Your task to perform on an android device: turn on data saver in the chrome app Image 0: 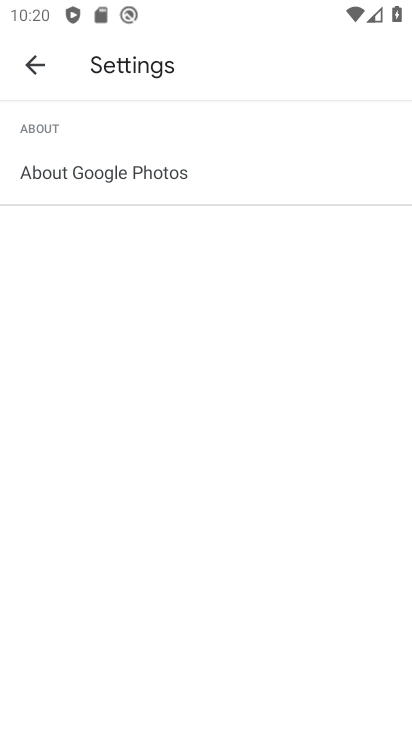
Step 0: press home button
Your task to perform on an android device: turn on data saver in the chrome app Image 1: 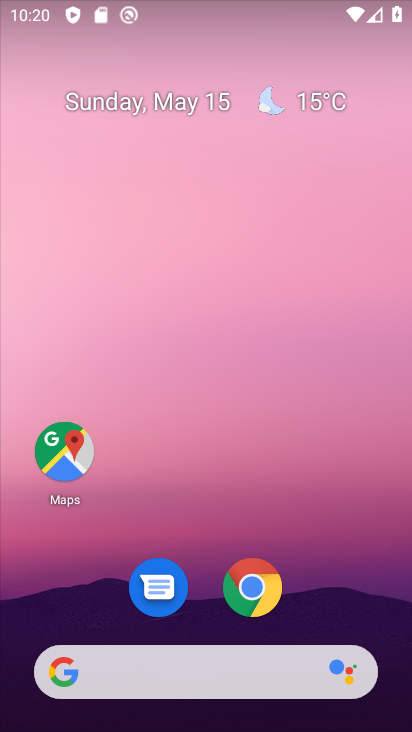
Step 1: click (261, 596)
Your task to perform on an android device: turn on data saver in the chrome app Image 2: 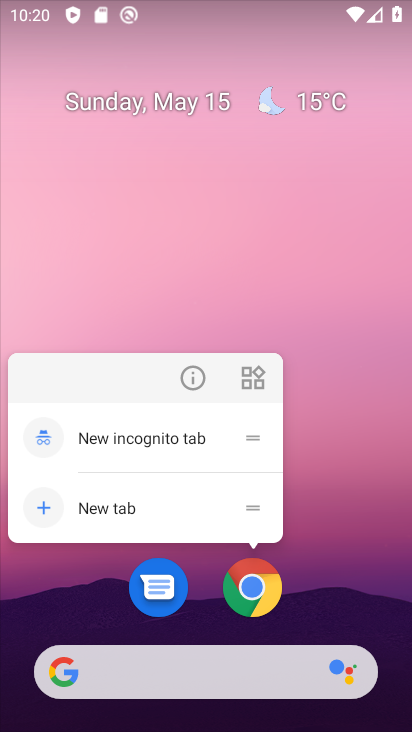
Step 2: click (259, 580)
Your task to perform on an android device: turn on data saver in the chrome app Image 3: 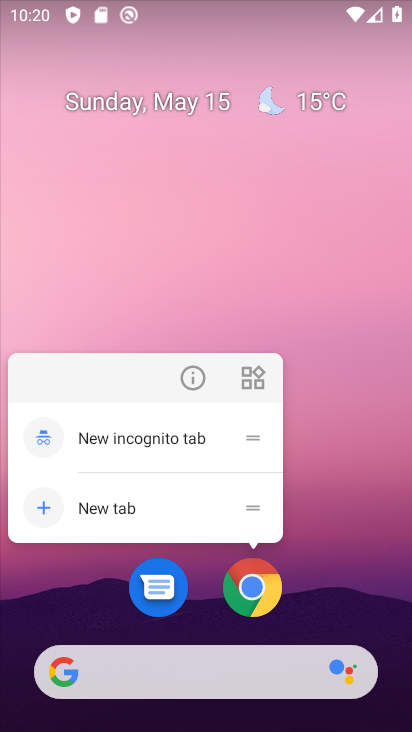
Step 3: click (251, 587)
Your task to perform on an android device: turn on data saver in the chrome app Image 4: 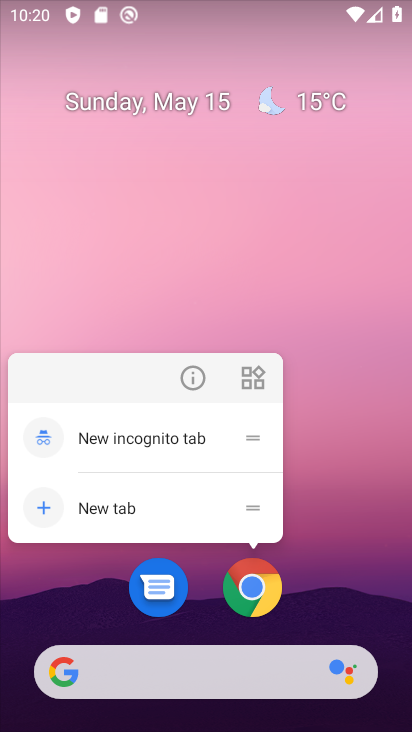
Step 4: click (247, 600)
Your task to perform on an android device: turn on data saver in the chrome app Image 5: 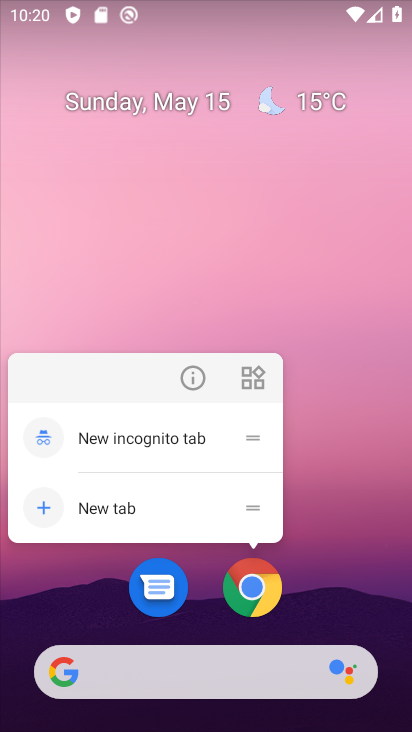
Step 5: click (270, 582)
Your task to perform on an android device: turn on data saver in the chrome app Image 6: 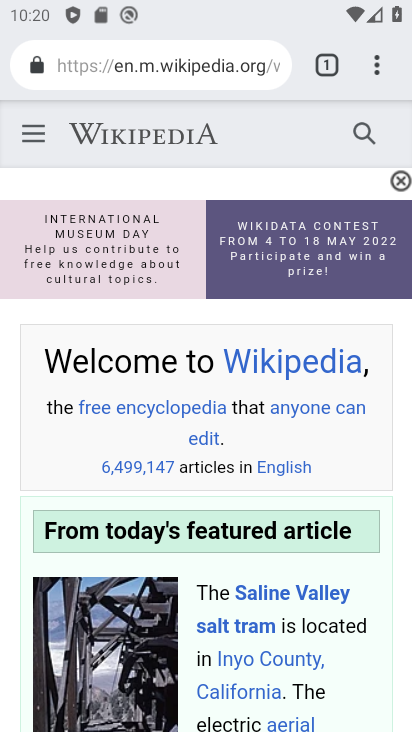
Step 6: drag from (387, 65) to (271, 635)
Your task to perform on an android device: turn on data saver in the chrome app Image 7: 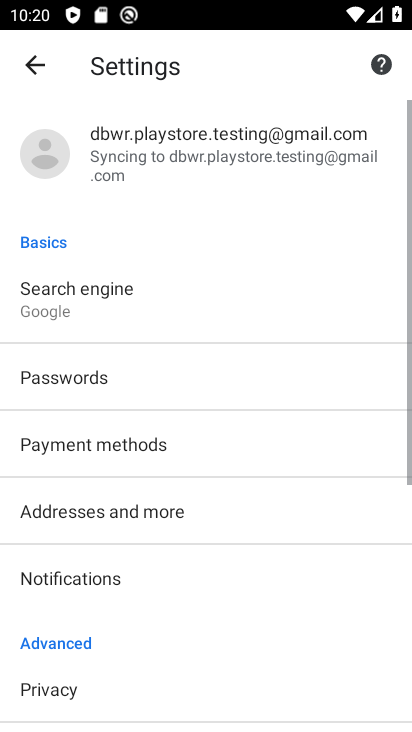
Step 7: drag from (258, 634) to (373, 240)
Your task to perform on an android device: turn on data saver in the chrome app Image 8: 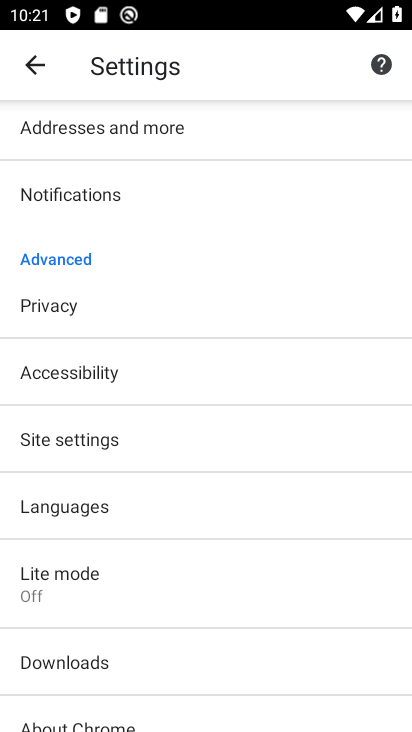
Step 8: drag from (148, 630) to (202, 397)
Your task to perform on an android device: turn on data saver in the chrome app Image 9: 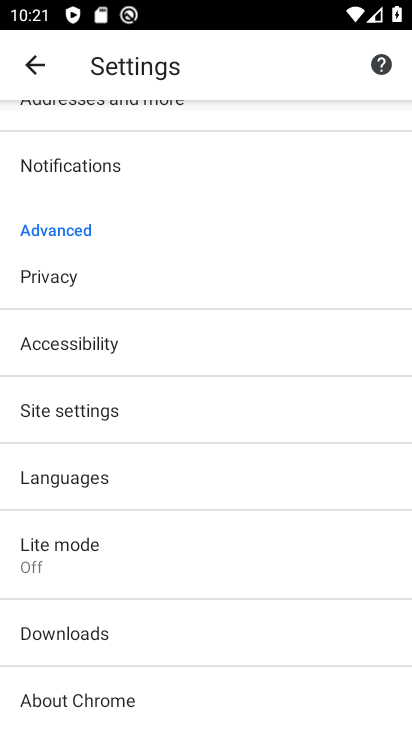
Step 9: click (218, 549)
Your task to perform on an android device: turn on data saver in the chrome app Image 10: 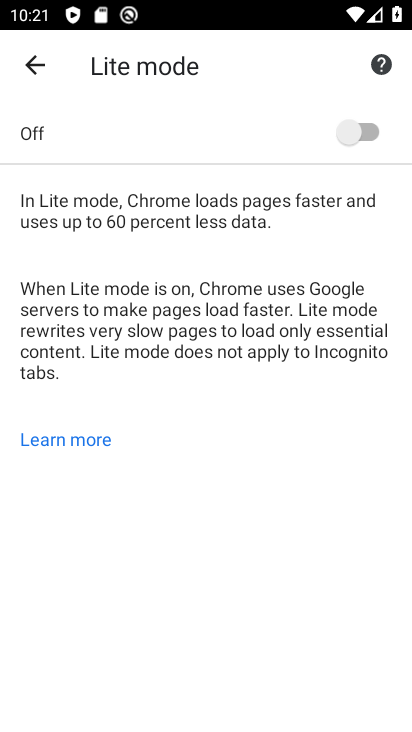
Step 10: click (382, 137)
Your task to perform on an android device: turn on data saver in the chrome app Image 11: 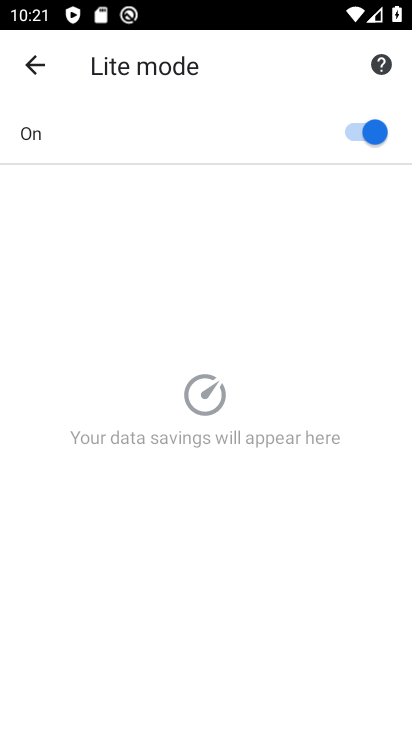
Step 11: task complete